Your task to perform on an android device: remove spam from my inbox in the gmail app Image 0: 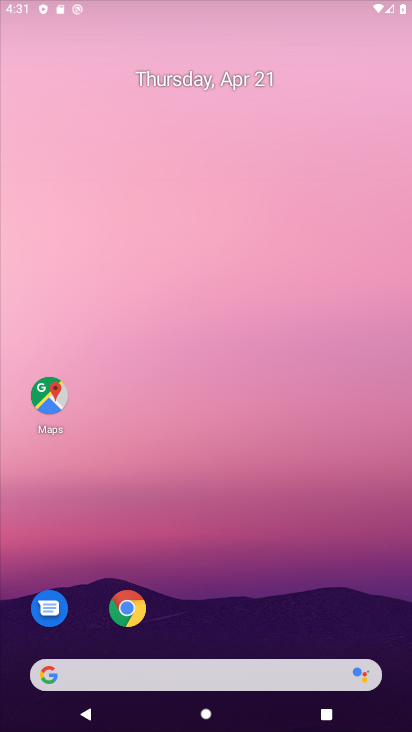
Step 0: drag from (308, 474) to (293, 200)
Your task to perform on an android device: remove spam from my inbox in the gmail app Image 1: 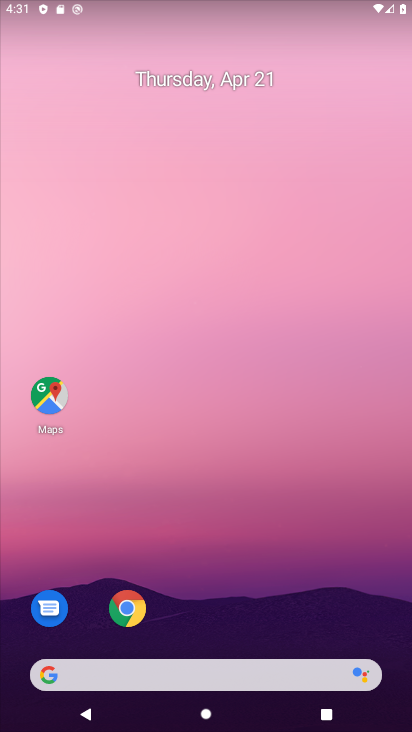
Step 1: drag from (232, 595) to (199, 162)
Your task to perform on an android device: remove spam from my inbox in the gmail app Image 2: 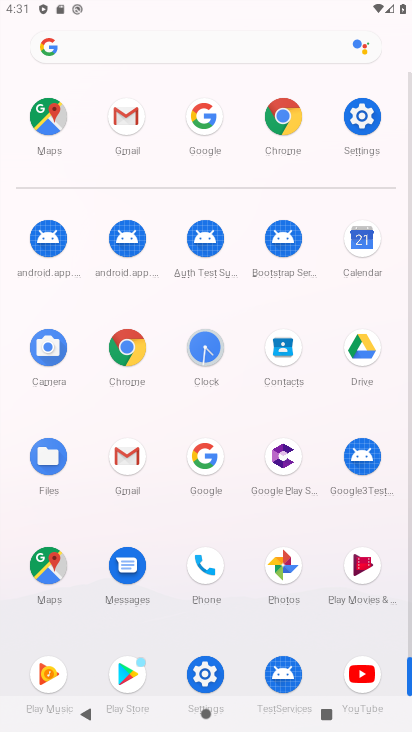
Step 2: click (134, 457)
Your task to perform on an android device: remove spam from my inbox in the gmail app Image 3: 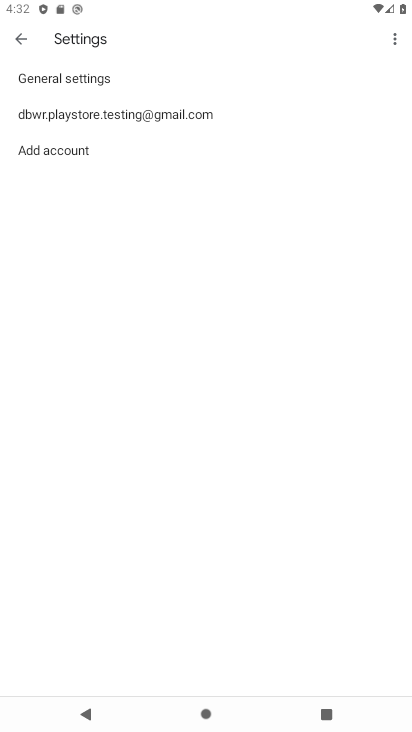
Step 3: click (201, 108)
Your task to perform on an android device: remove spam from my inbox in the gmail app Image 4: 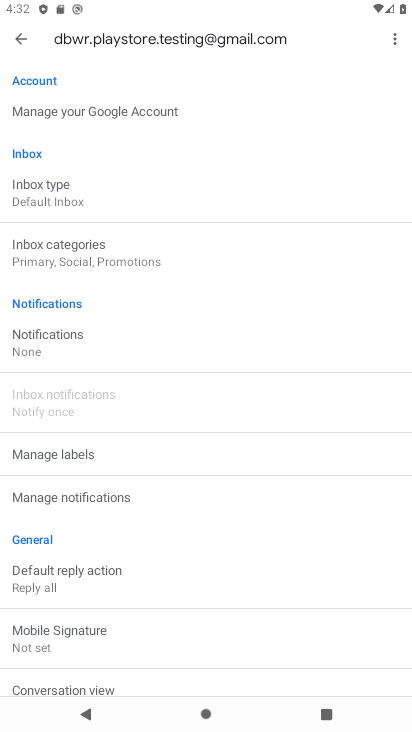
Step 4: drag from (142, 587) to (158, 238)
Your task to perform on an android device: remove spam from my inbox in the gmail app Image 5: 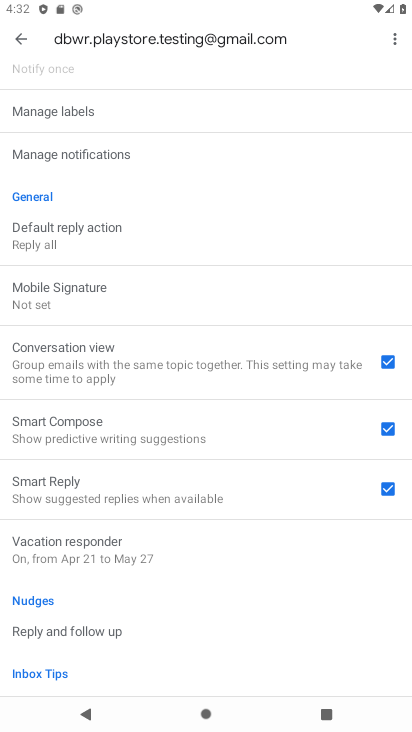
Step 5: drag from (174, 585) to (217, 296)
Your task to perform on an android device: remove spam from my inbox in the gmail app Image 6: 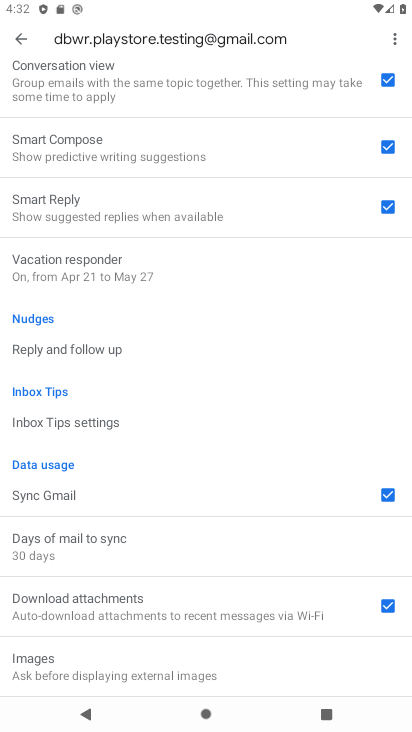
Step 6: drag from (274, 475) to (305, 226)
Your task to perform on an android device: remove spam from my inbox in the gmail app Image 7: 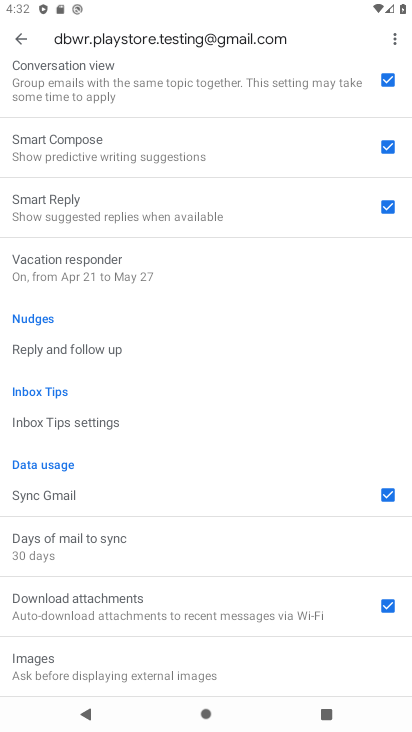
Step 7: press home button
Your task to perform on an android device: remove spam from my inbox in the gmail app Image 8: 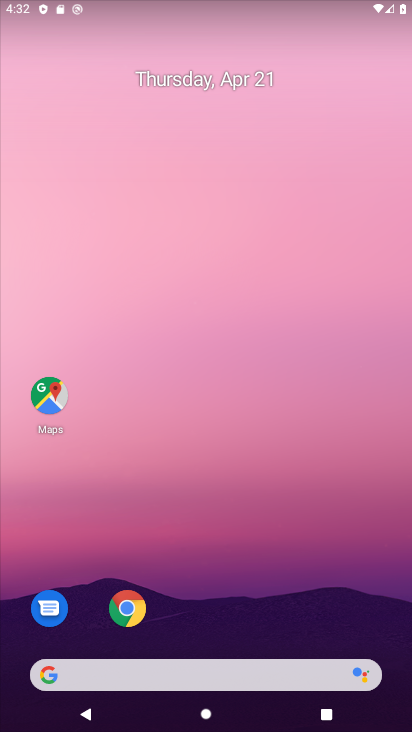
Step 8: drag from (270, 567) to (356, 161)
Your task to perform on an android device: remove spam from my inbox in the gmail app Image 9: 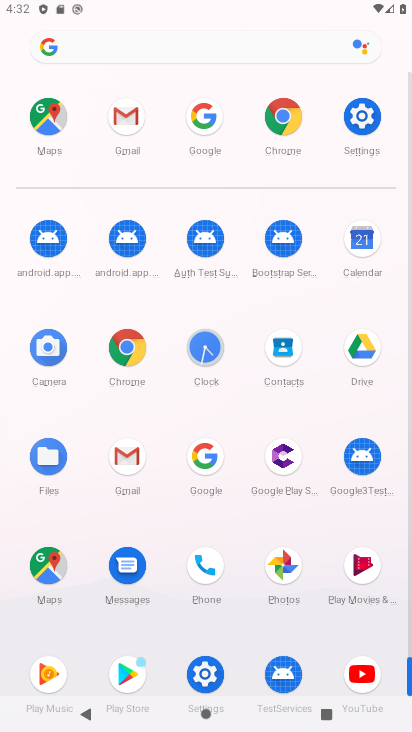
Step 9: click (105, 455)
Your task to perform on an android device: remove spam from my inbox in the gmail app Image 10: 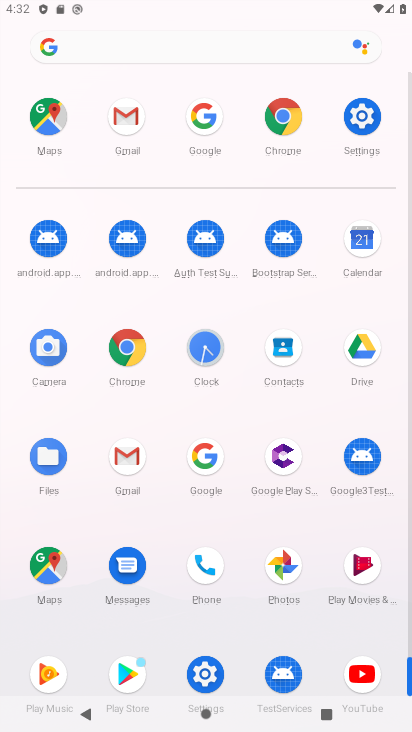
Step 10: click (137, 462)
Your task to perform on an android device: remove spam from my inbox in the gmail app Image 11: 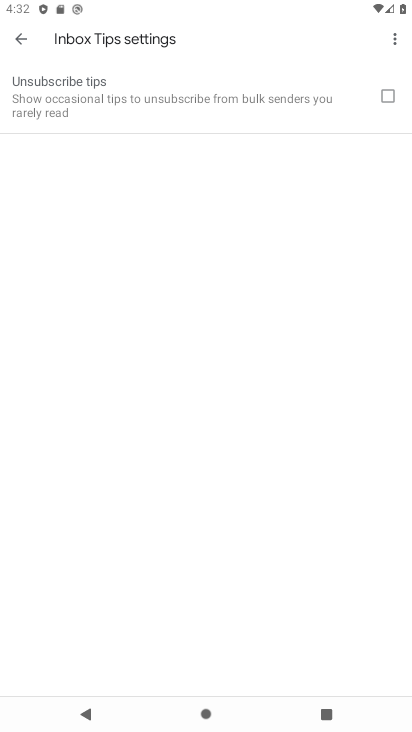
Step 11: click (20, 43)
Your task to perform on an android device: remove spam from my inbox in the gmail app Image 12: 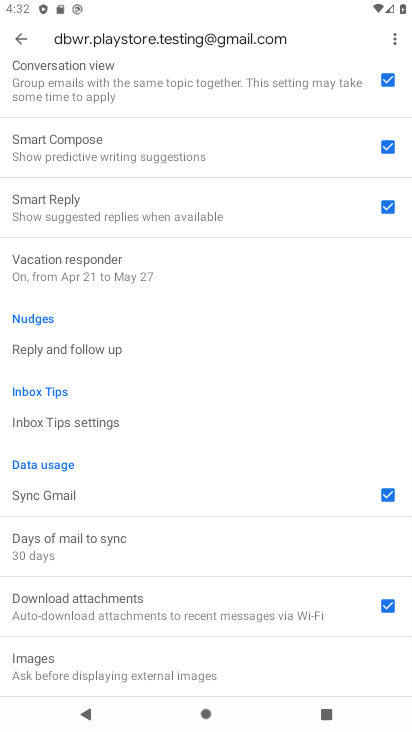
Step 12: click (20, 43)
Your task to perform on an android device: remove spam from my inbox in the gmail app Image 13: 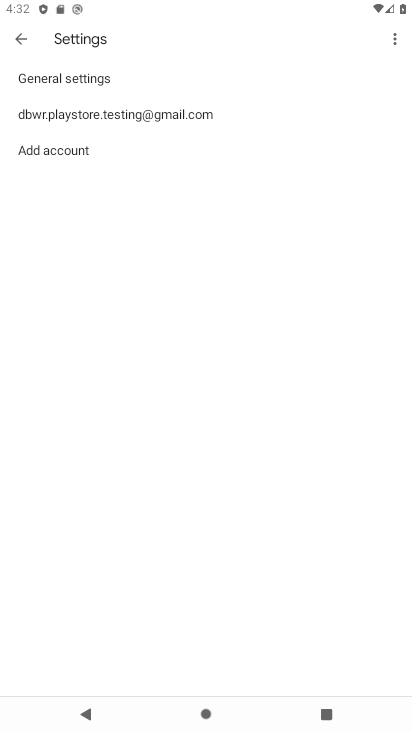
Step 13: click (16, 34)
Your task to perform on an android device: remove spam from my inbox in the gmail app Image 14: 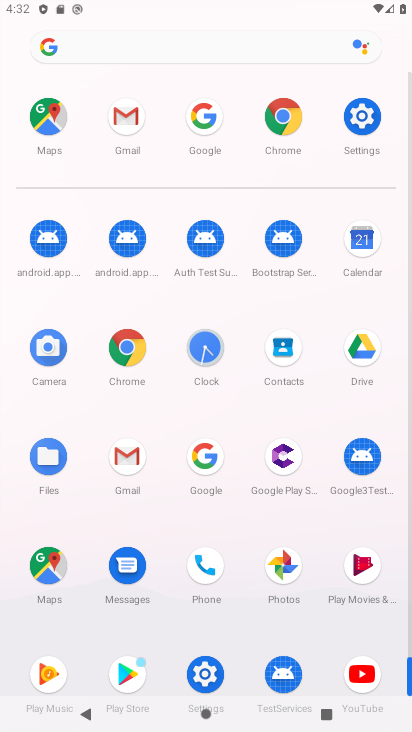
Step 14: click (131, 116)
Your task to perform on an android device: remove spam from my inbox in the gmail app Image 15: 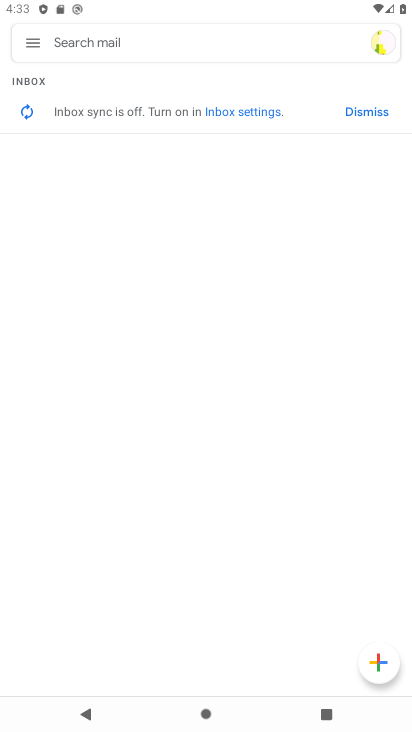
Step 15: click (26, 39)
Your task to perform on an android device: remove spam from my inbox in the gmail app Image 16: 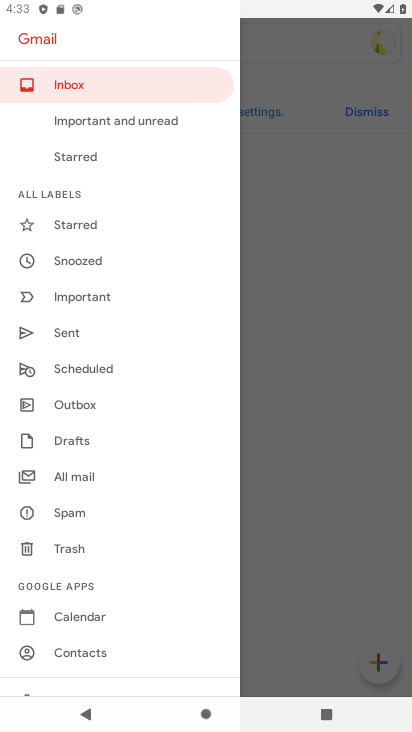
Step 16: click (57, 513)
Your task to perform on an android device: remove spam from my inbox in the gmail app Image 17: 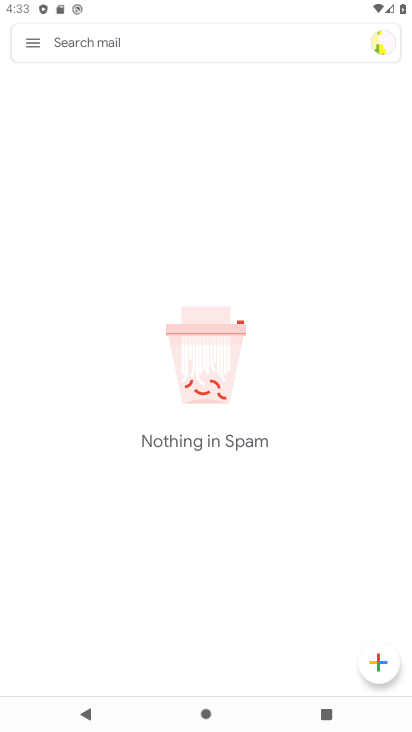
Step 17: task complete